Your task to perform on an android device: Open battery settings Image 0: 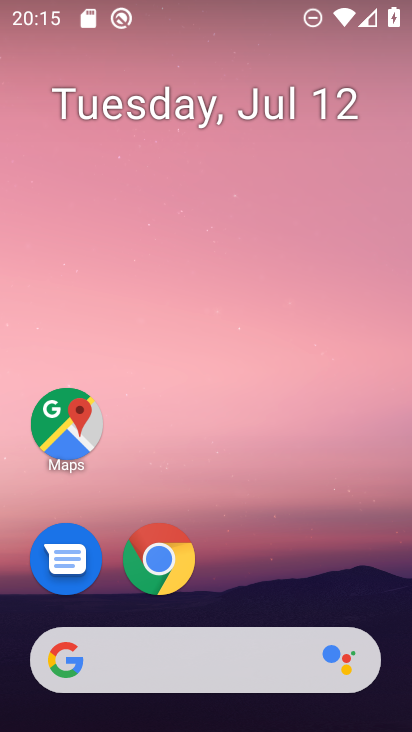
Step 0: drag from (364, 587) to (361, 95)
Your task to perform on an android device: Open battery settings Image 1: 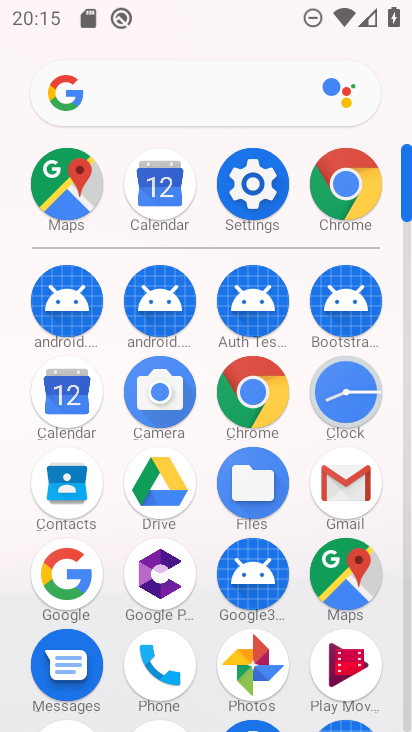
Step 1: click (260, 201)
Your task to perform on an android device: Open battery settings Image 2: 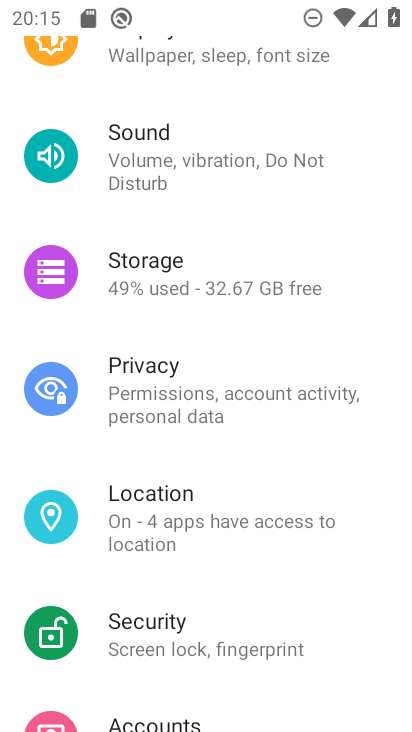
Step 2: drag from (370, 193) to (372, 285)
Your task to perform on an android device: Open battery settings Image 3: 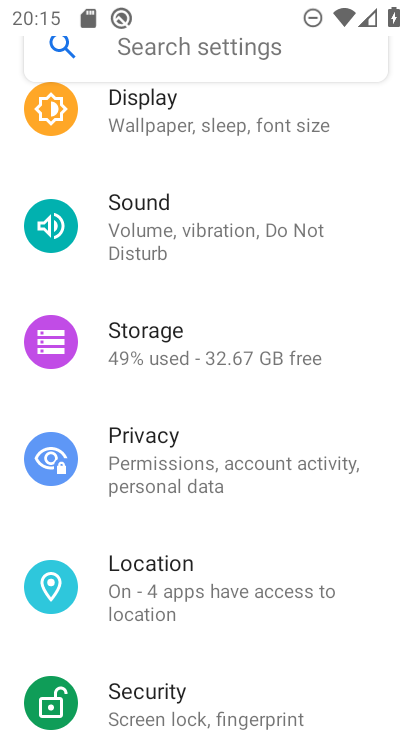
Step 3: drag from (369, 203) to (366, 322)
Your task to perform on an android device: Open battery settings Image 4: 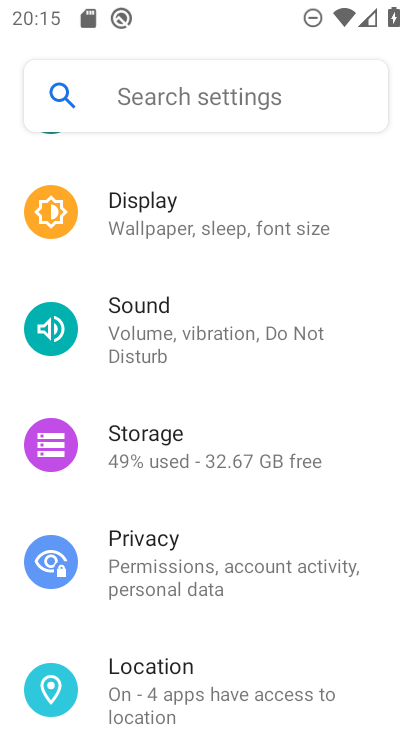
Step 4: drag from (369, 205) to (368, 320)
Your task to perform on an android device: Open battery settings Image 5: 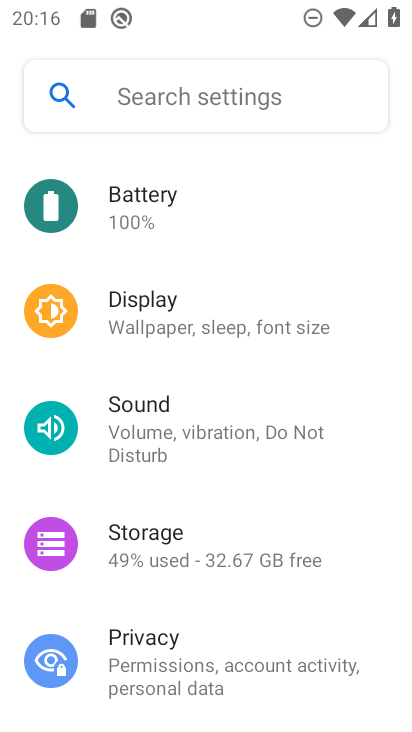
Step 5: drag from (364, 187) to (366, 309)
Your task to perform on an android device: Open battery settings Image 6: 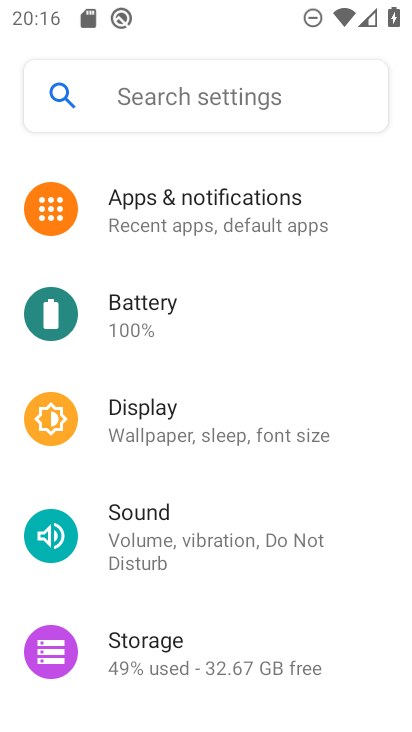
Step 6: drag from (367, 192) to (365, 314)
Your task to perform on an android device: Open battery settings Image 7: 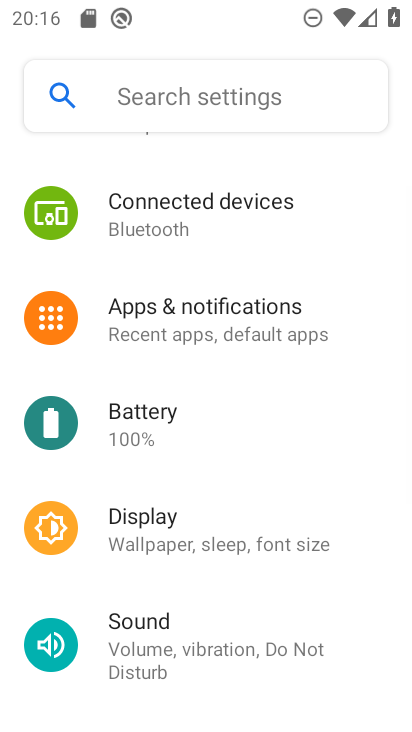
Step 7: click (275, 435)
Your task to perform on an android device: Open battery settings Image 8: 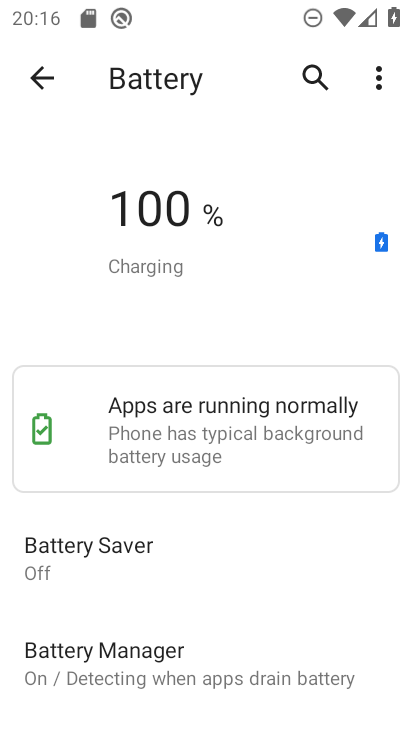
Step 8: task complete